Your task to perform on an android device: change your default location settings in chrome Image 0: 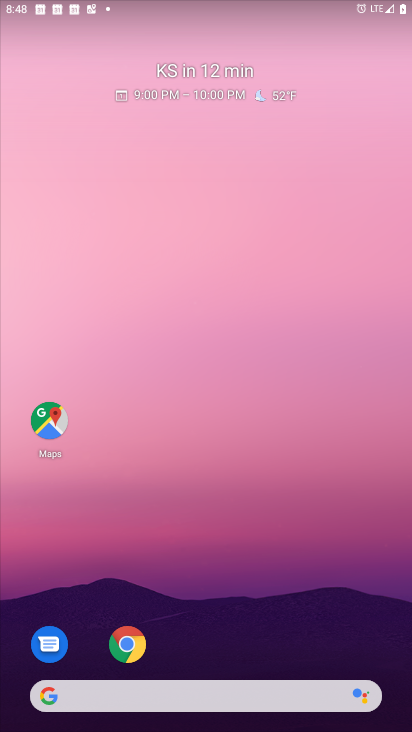
Step 0: click (127, 648)
Your task to perform on an android device: change your default location settings in chrome Image 1: 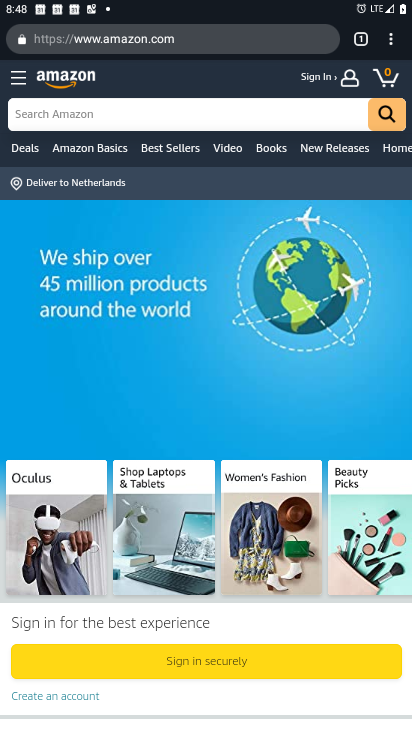
Step 1: click (388, 45)
Your task to perform on an android device: change your default location settings in chrome Image 2: 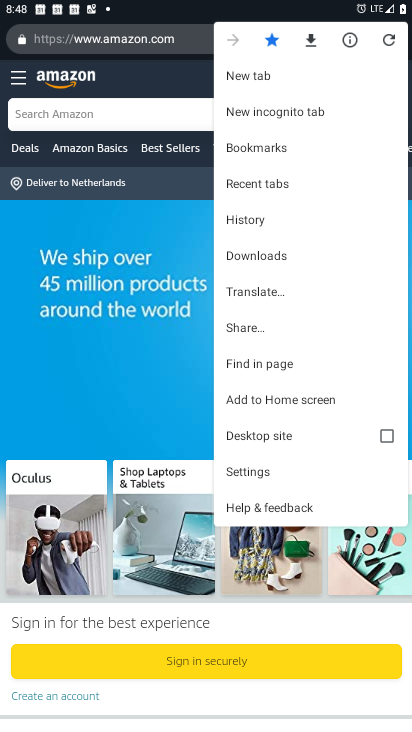
Step 2: click (267, 467)
Your task to perform on an android device: change your default location settings in chrome Image 3: 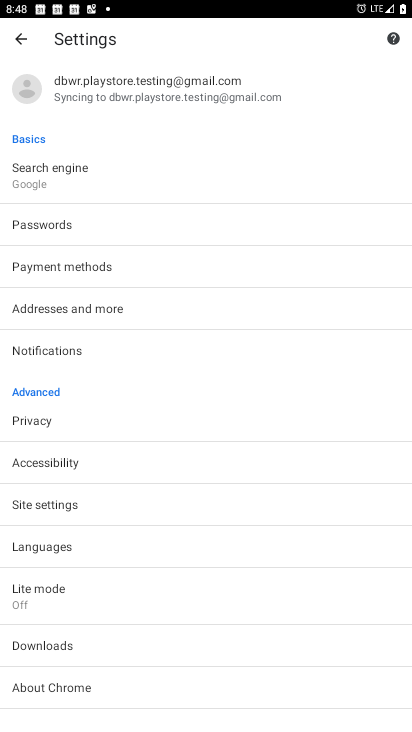
Step 3: click (49, 508)
Your task to perform on an android device: change your default location settings in chrome Image 4: 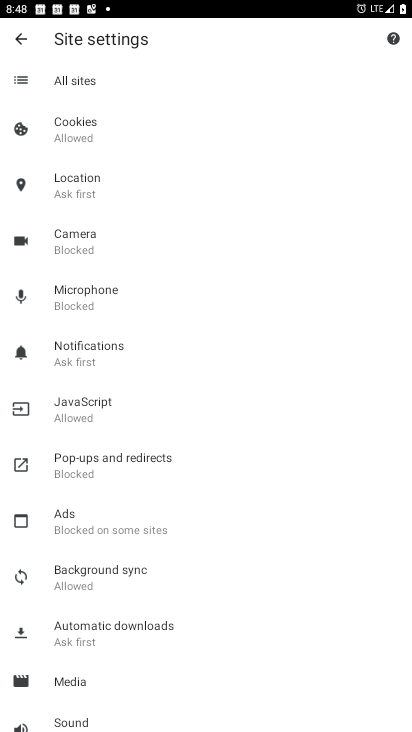
Step 4: click (71, 185)
Your task to perform on an android device: change your default location settings in chrome Image 5: 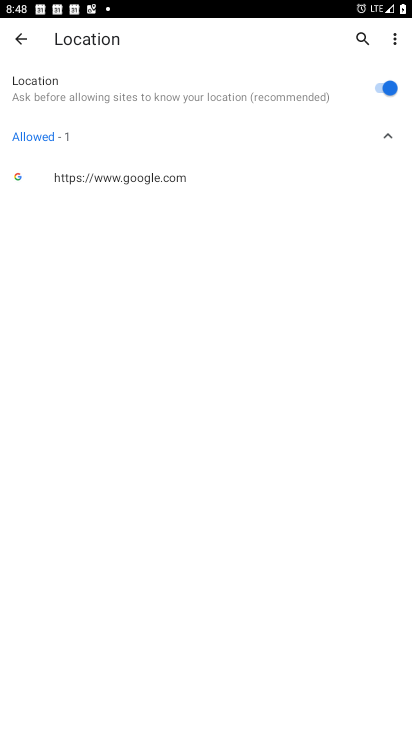
Step 5: click (378, 91)
Your task to perform on an android device: change your default location settings in chrome Image 6: 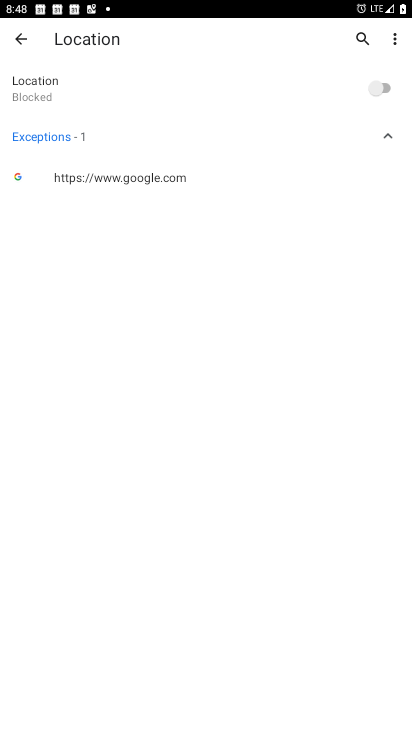
Step 6: task complete